Your task to perform on an android device: turn on notifications settings in the gmail app Image 0: 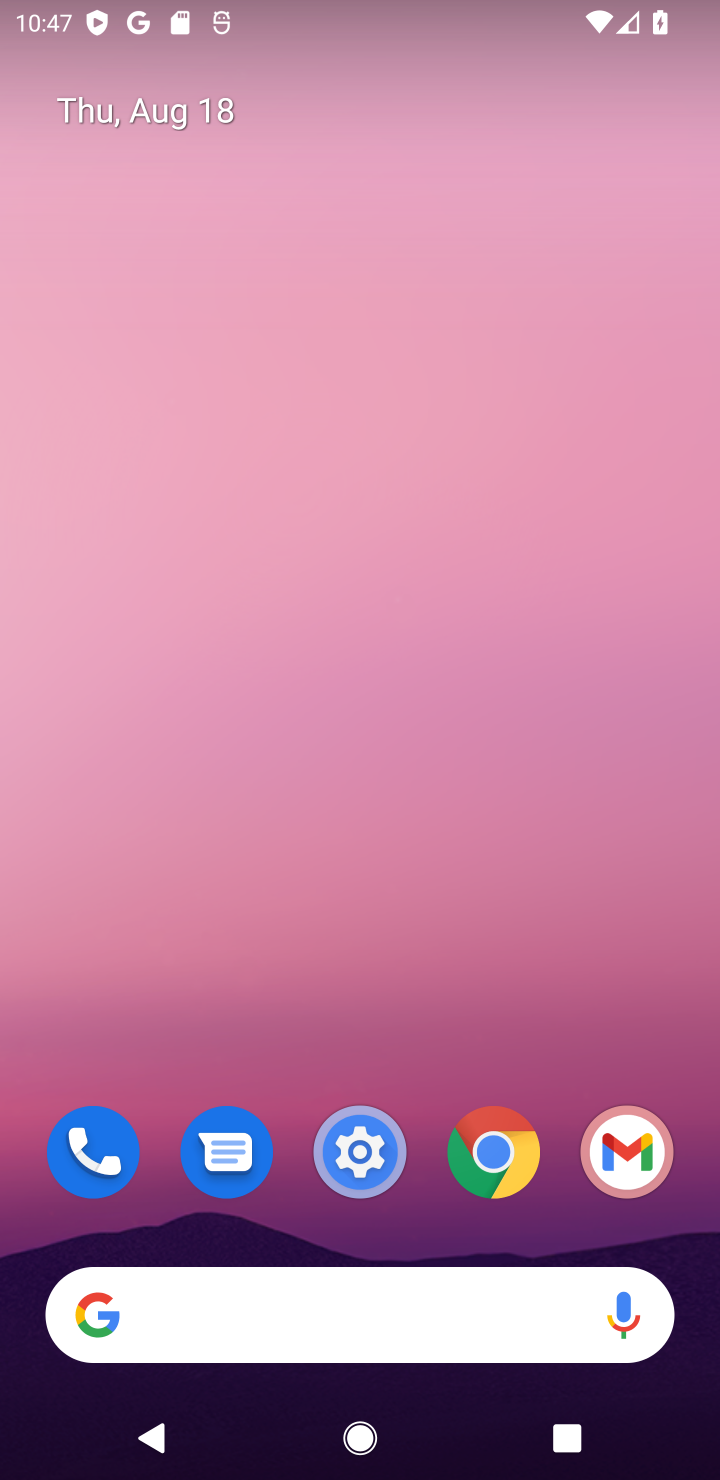
Step 0: click (634, 1143)
Your task to perform on an android device: turn on notifications settings in the gmail app Image 1: 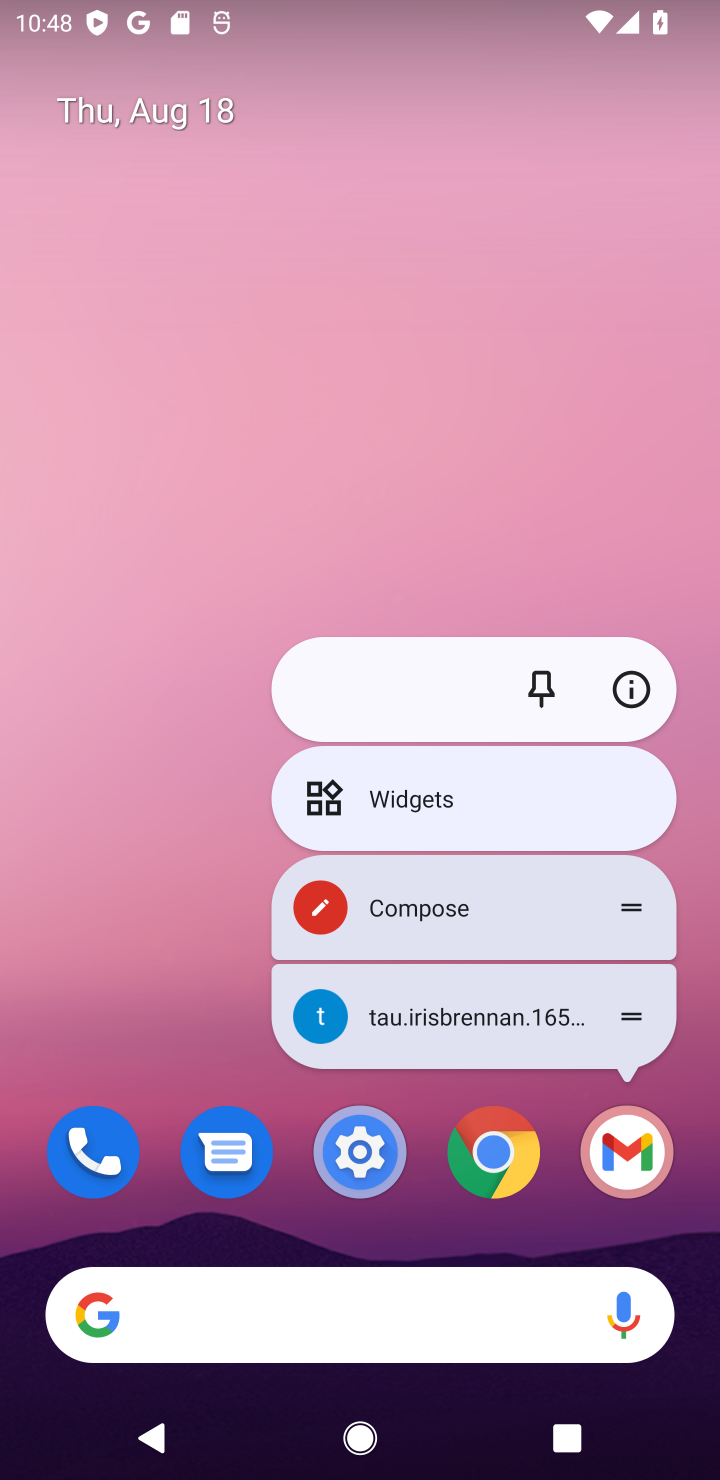
Step 1: click (634, 1143)
Your task to perform on an android device: turn on notifications settings in the gmail app Image 2: 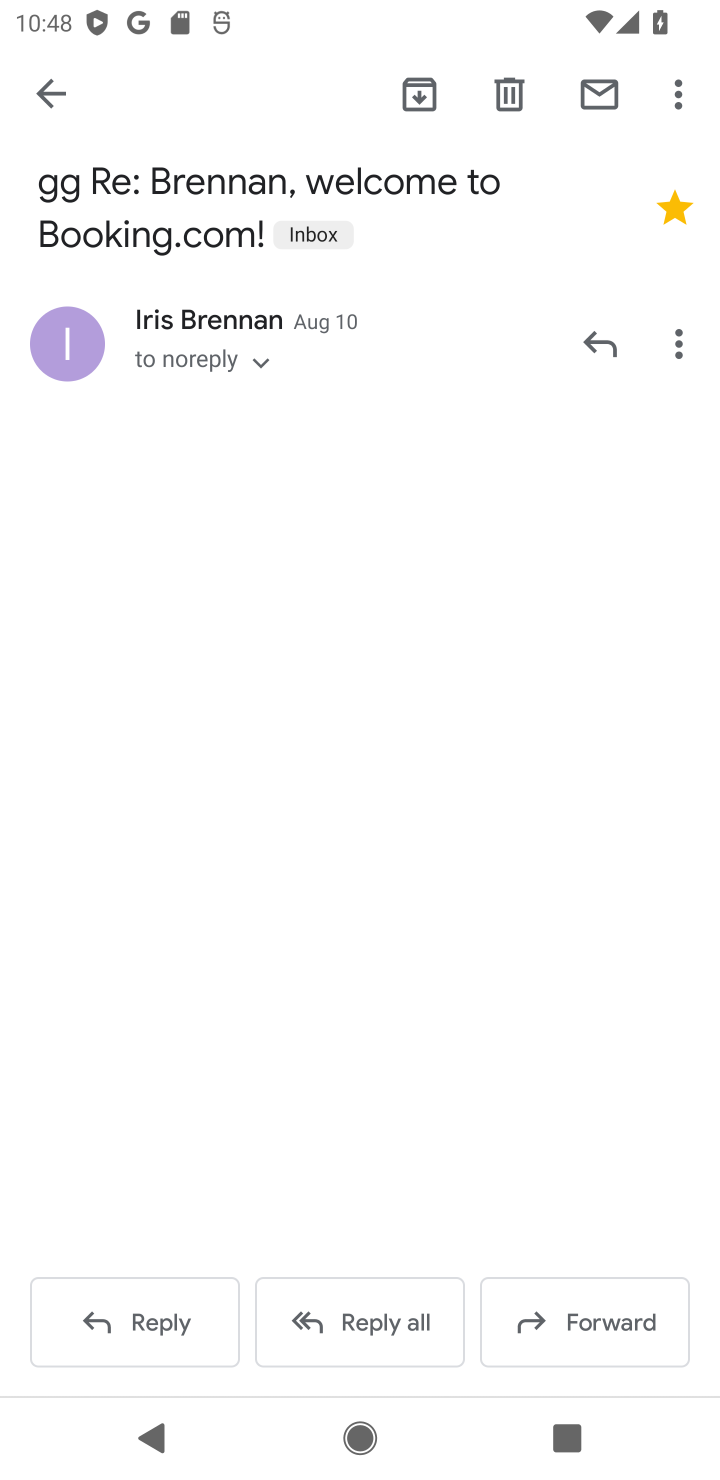
Step 2: click (50, 77)
Your task to perform on an android device: turn on notifications settings in the gmail app Image 3: 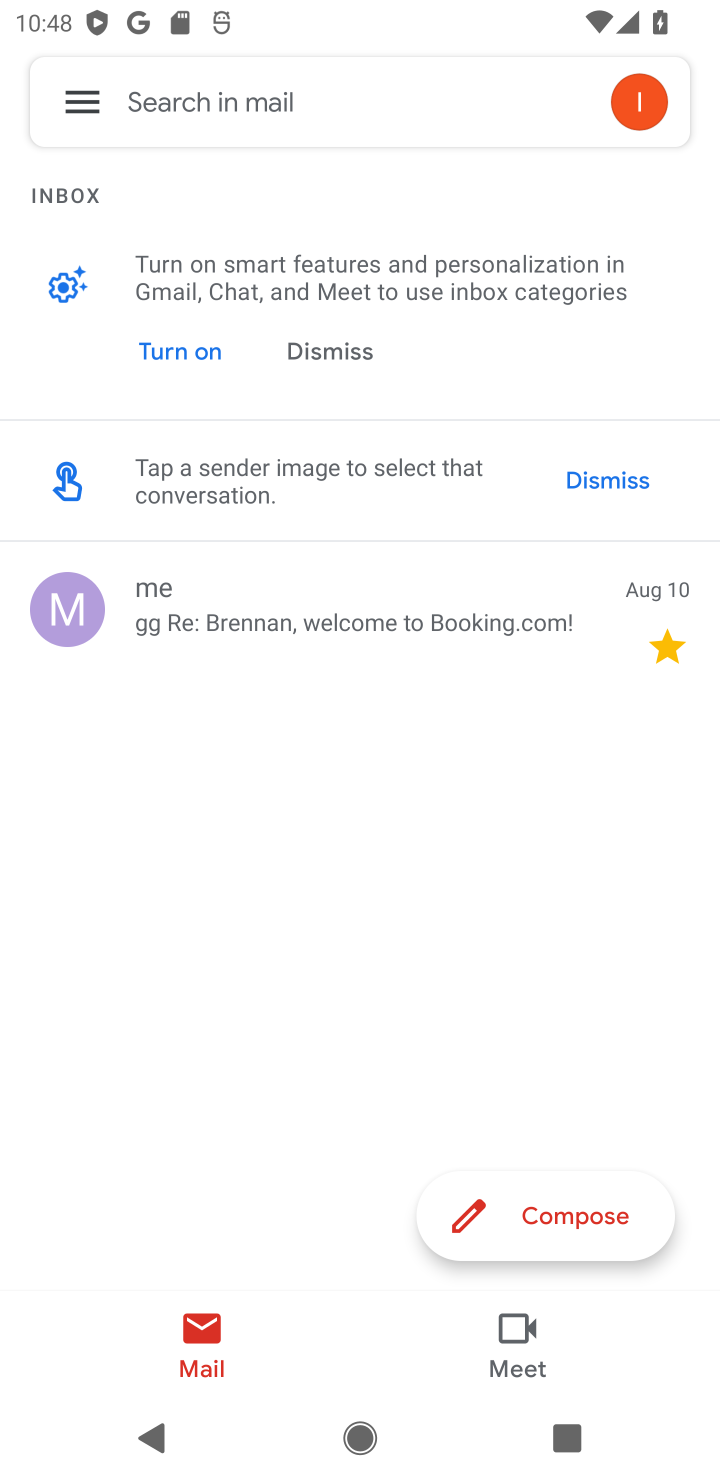
Step 3: click (76, 95)
Your task to perform on an android device: turn on notifications settings in the gmail app Image 4: 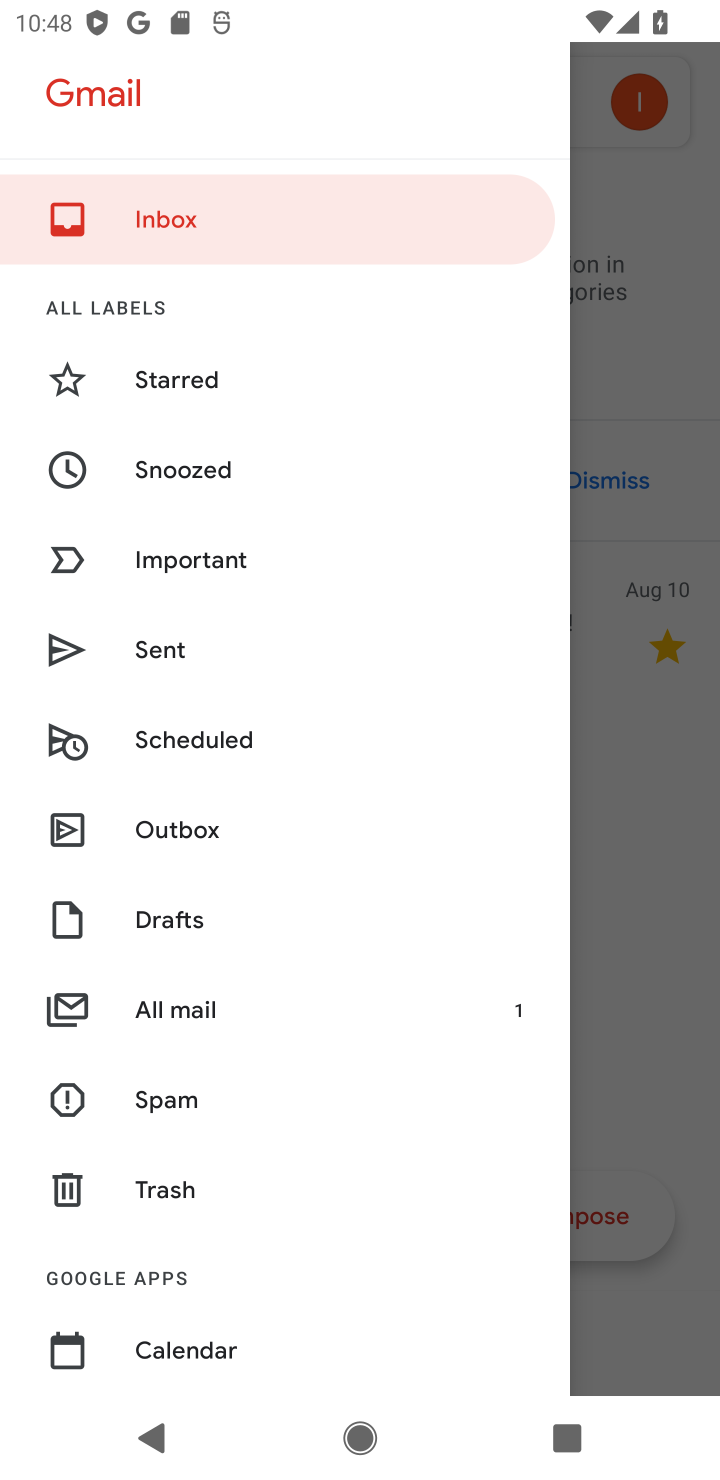
Step 4: drag from (308, 1125) to (374, 899)
Your task to perform on an android device: turn on notifications settings in the gmail app Image 5: 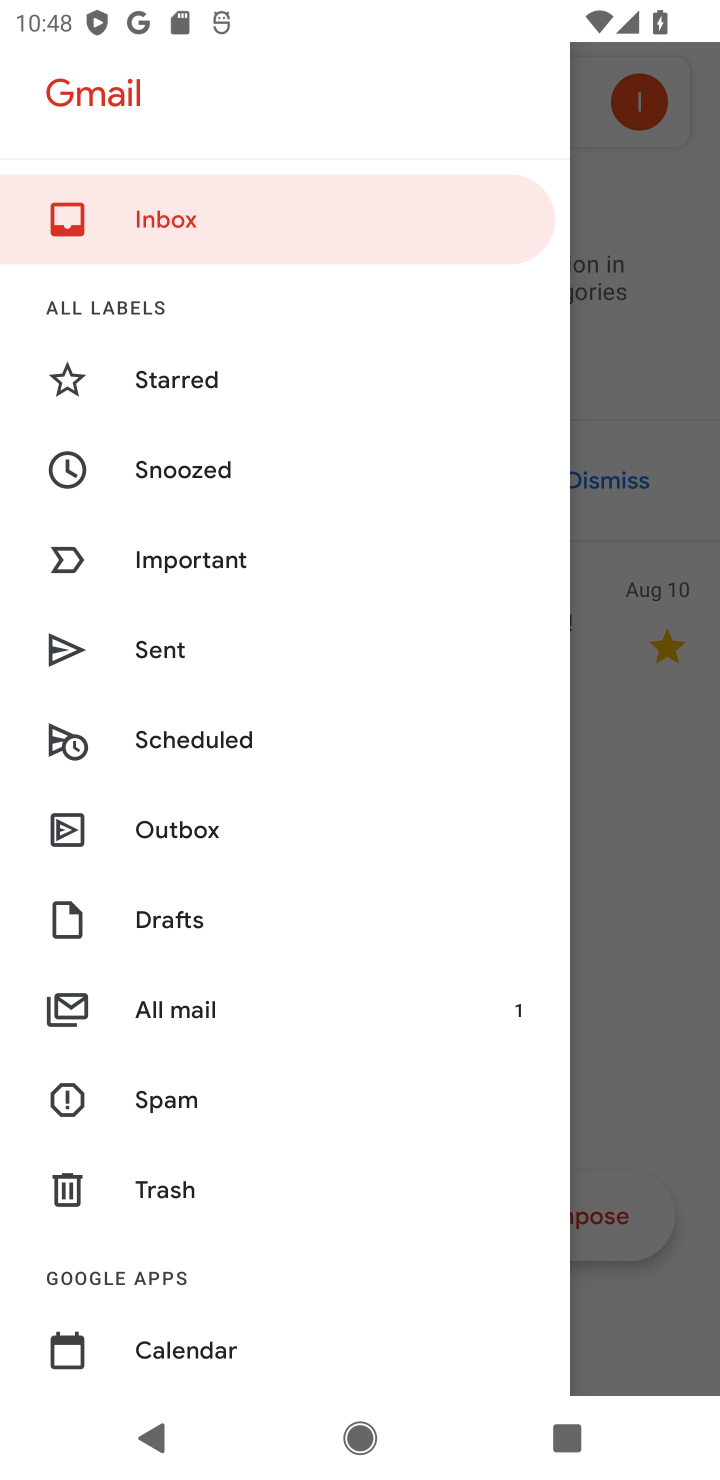
Step 5: drag from (377, 777) to (486, 1)
Your task to perform on an android device: turn on notifications settings in the gmail app Image 6: 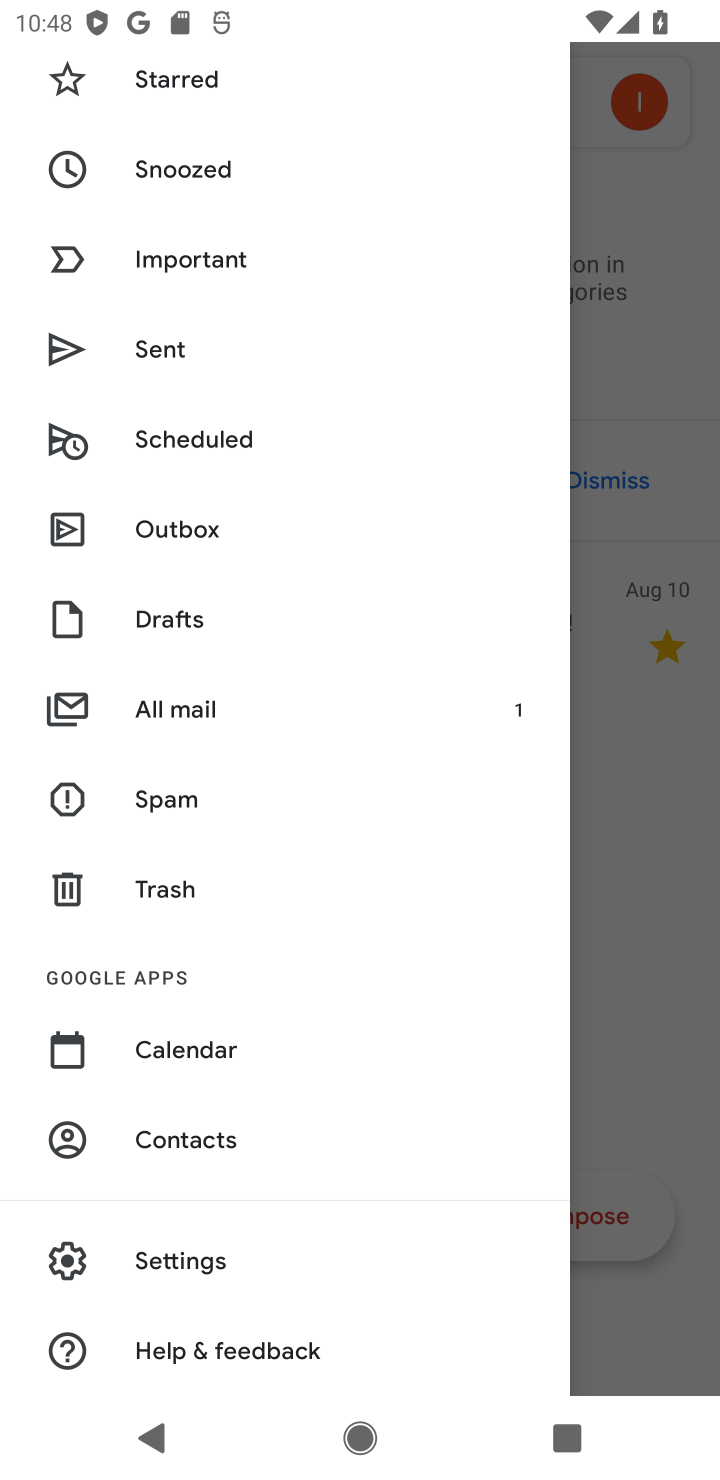
Step 6: click (208, 1247)
Your task to perform on an android device: turn on notifications settings in the gmail app Image 7: 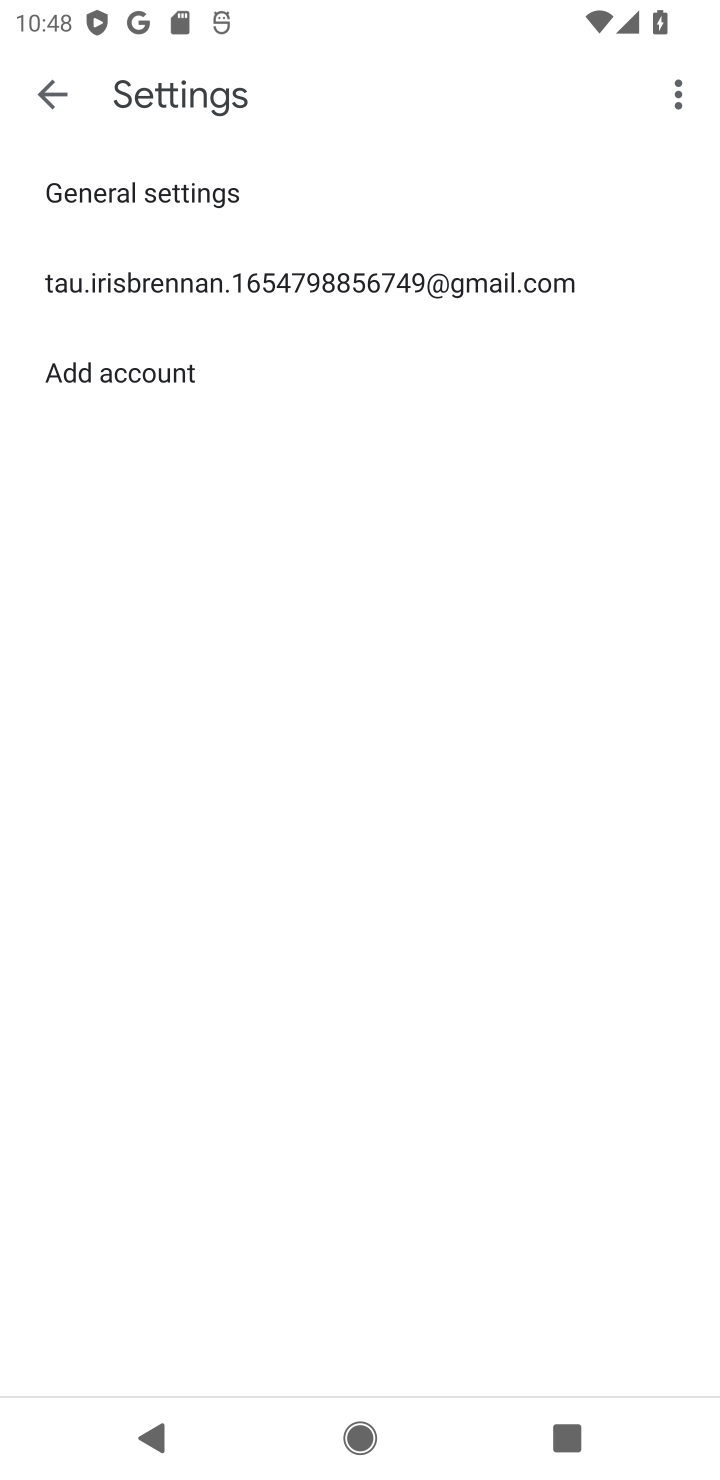
Step 7: click (413, 272)
Your task to perform on an android device: turn on notifications settings in the gmail app Image 8: 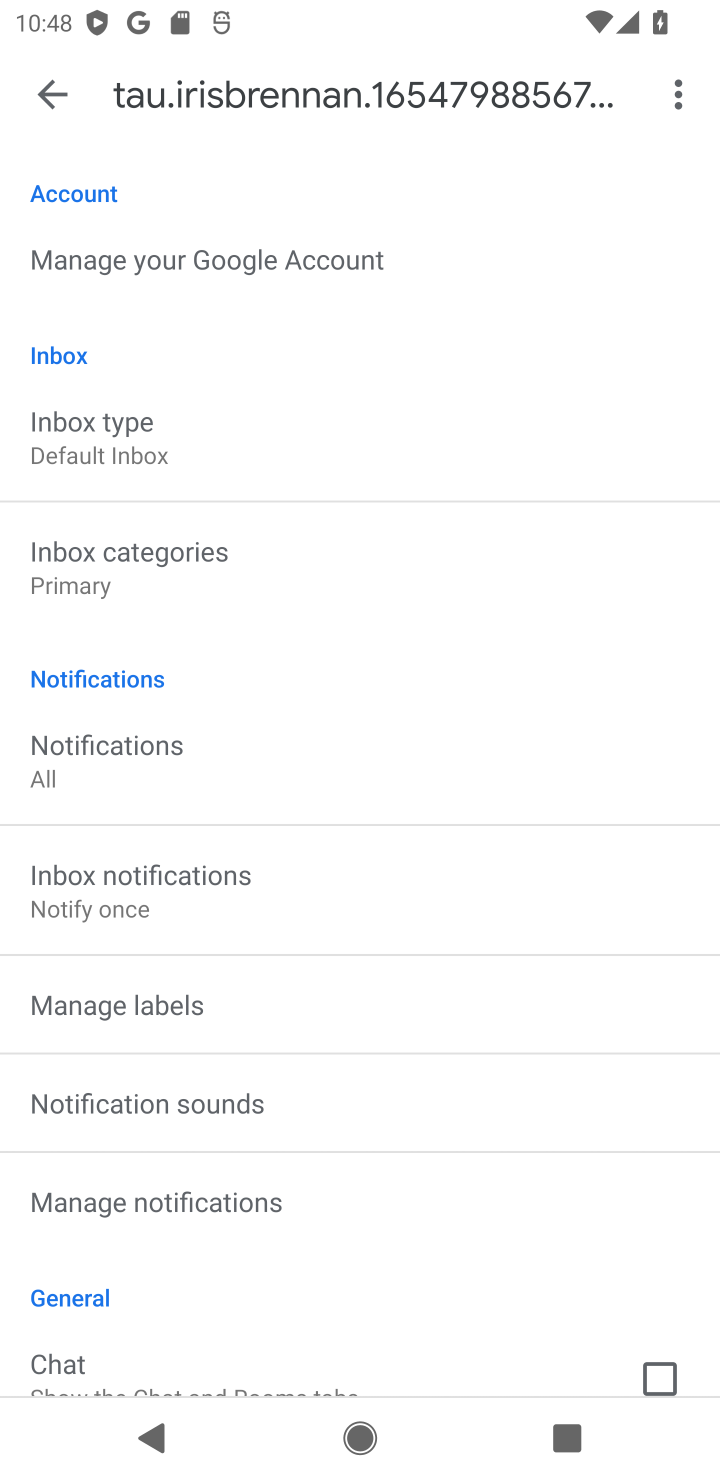
Step 8: click (240, 1197)
Your task to perform on an android device: turn on notifications settings in the gmail app Image 9: 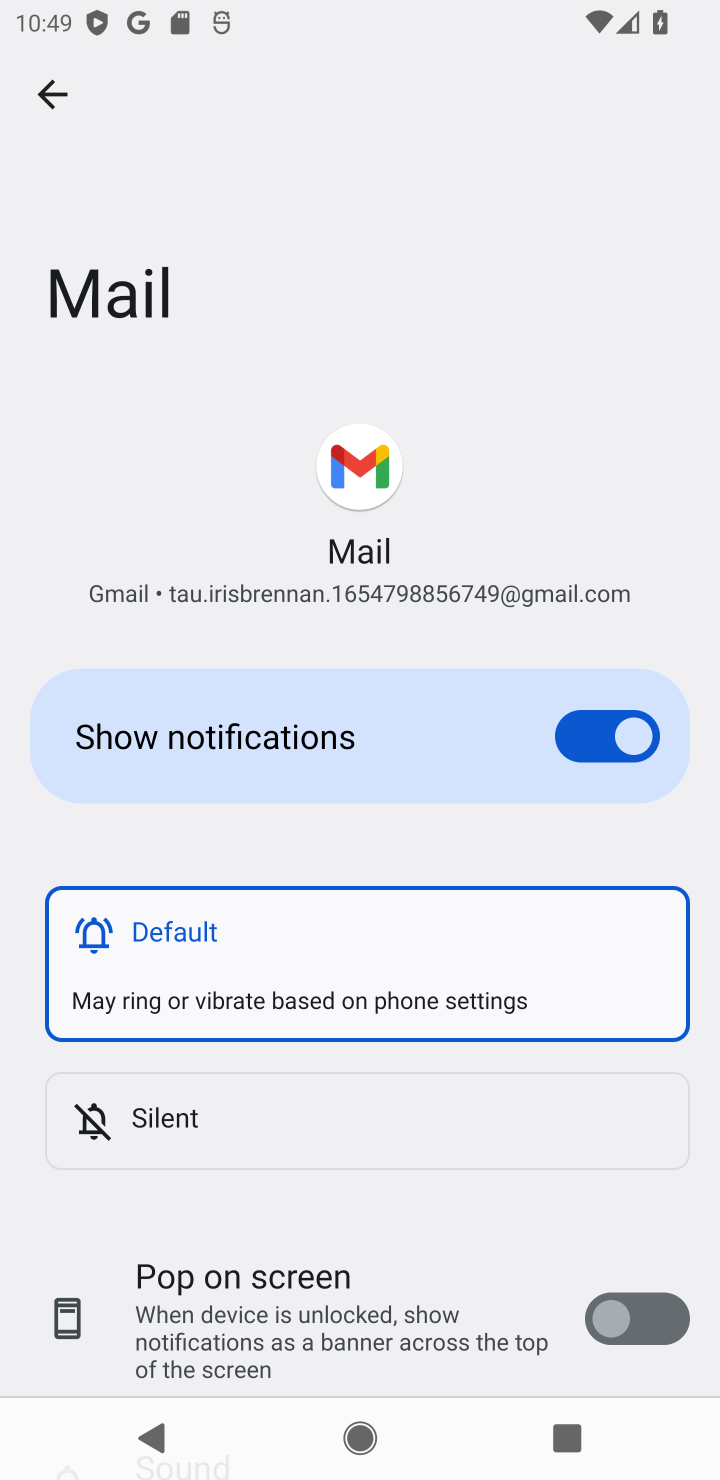
Step 9: task complete